Your task to perform on an android device: turn on the 24-hour format for clock Image 0: 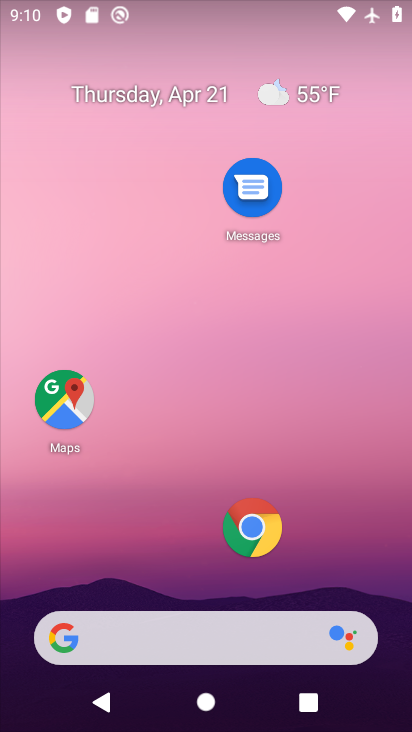
Step 0: drag from (149, 624) to (316, 144)
Your task to perform on an android device: turn on the 24-hour format for clock Image 1: 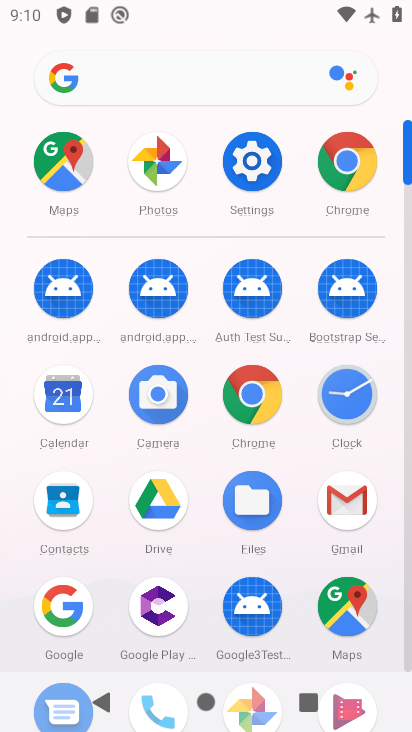
Step 1: click (357, 394)
Your task to perform on an android device: turn on the 24-hour format for clock Image 2: 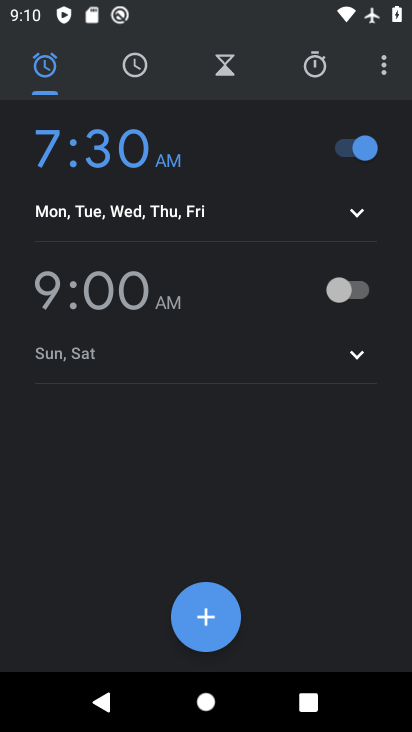
Step 2: click (384, 73)
Your task to perform on an android device: turn on the 24-hour format for clock Image 3: 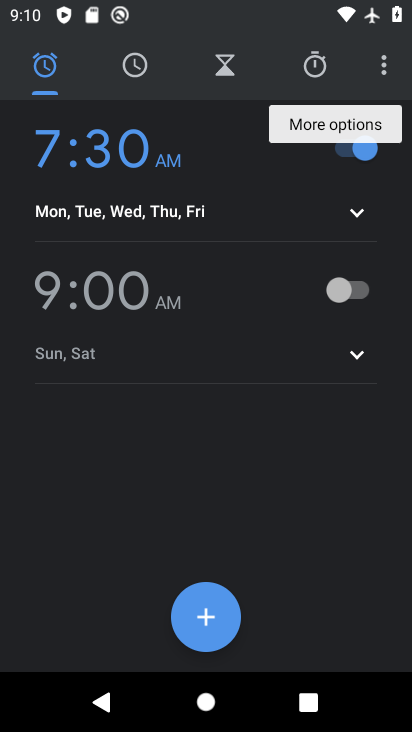
Step 3: click (384, 72)
Your task to perform on an android device: turn on the 24-hour format for clock Image 4: 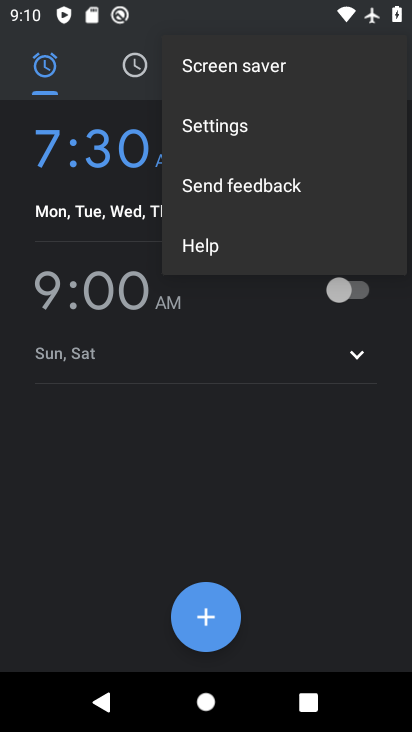
Step 4: click (229, 124)
Your task to perform on an android device: turn on the 24-hour format for clock Image 5: 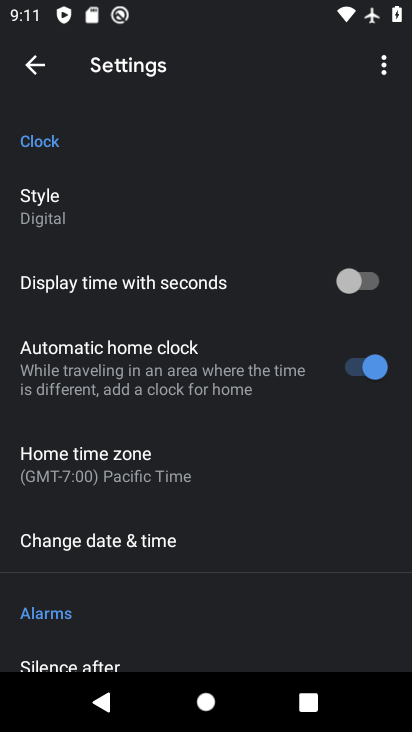
Step 5: drag from (209, 562) to (317, 316)
Your task to perform on an android device: turn on the 24-hour format for clock Image 6: 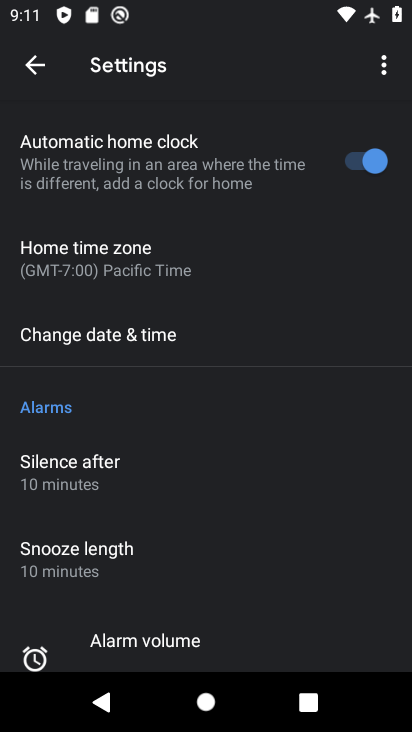
Step 6: click (155, 334)
Your task to perform on an android device: turn on the 24-hour format for clock Image 7: 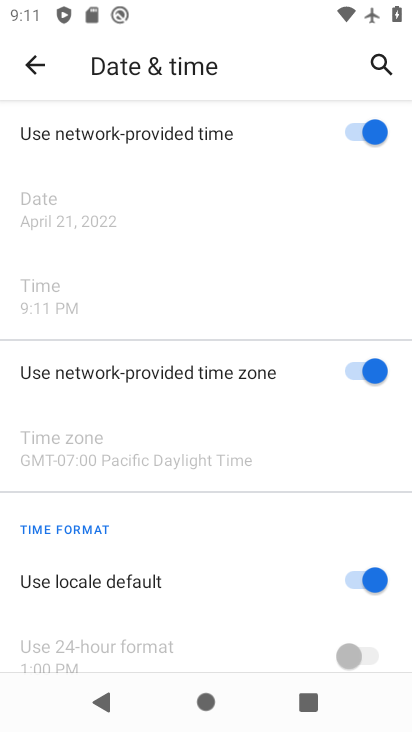
Step 7: drag from (188, 557) to (309, 237)
Your task to perform on an android device: turn on the 24-hour format for clock Image 8: 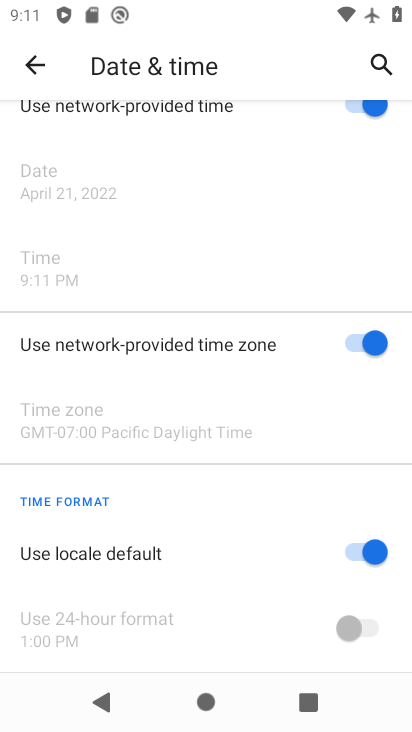
Step 8: click (361, 626)
Your task to perform on an android device: turn on the 24-hour format for clock Image 9: 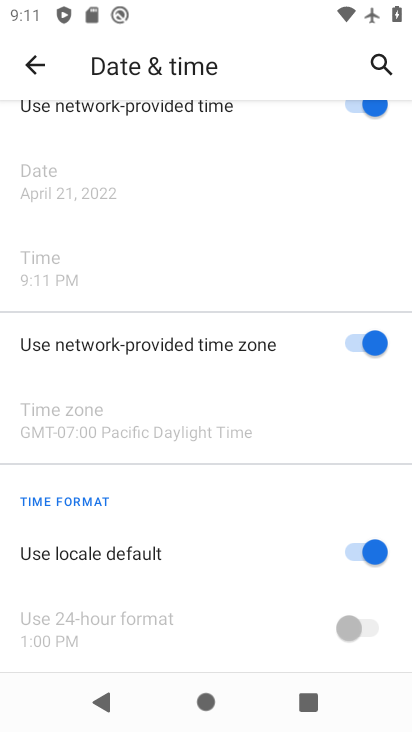
Step 9: click (351, 556)
Your task to perform on an android device: turn on the 24-hour format for clock Image 10: 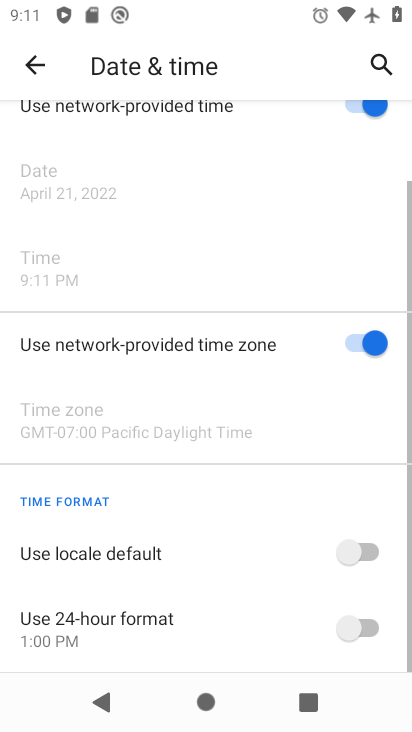
Step 10: click (369, 630)
Your task to perform on an android device: turn on the 24-hour format for clock Image 11: 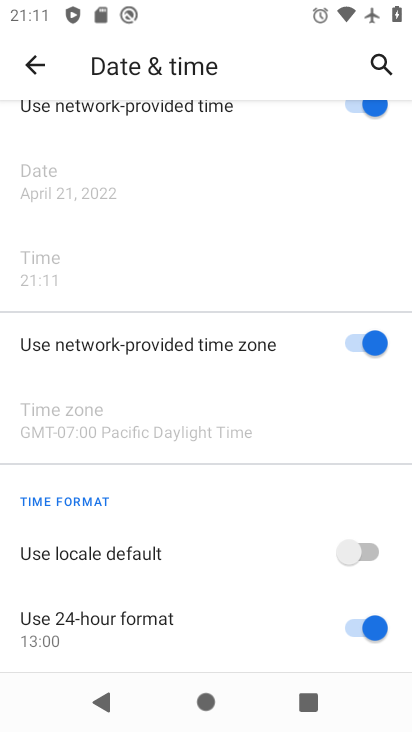
Step 11: task complete